Your task to perform on an android device: toggle javascript in the chrome app Image 0: 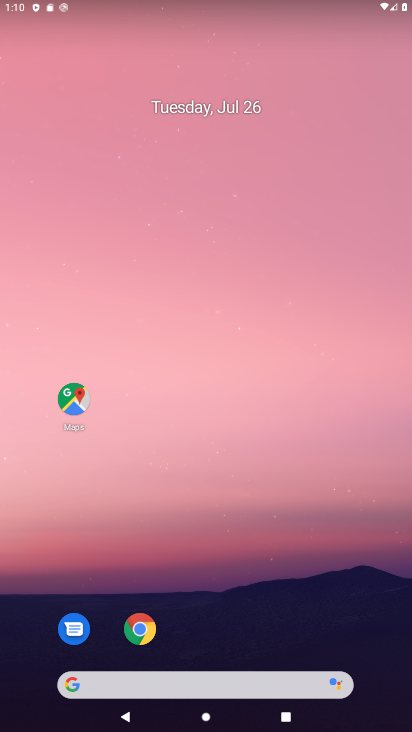
Step 0: drag from (196, 674) to (345, 7)
Your task to perform on an android device: toggle javascript in the chrome app Image 1: 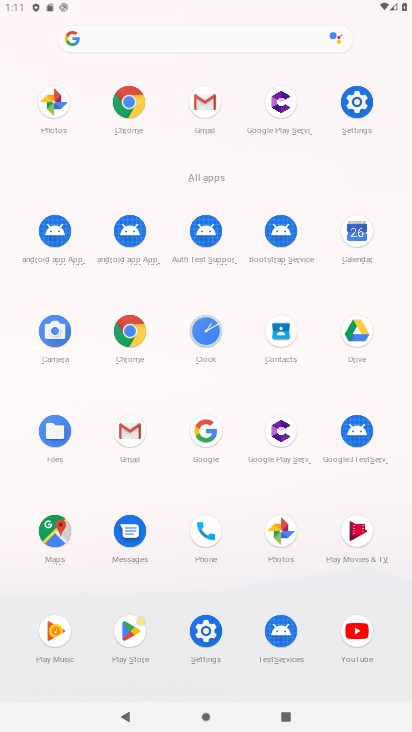
Step 1: click (136, 333)
Your task to perform on an android device: toggle javascript in the chrome app Image 2: 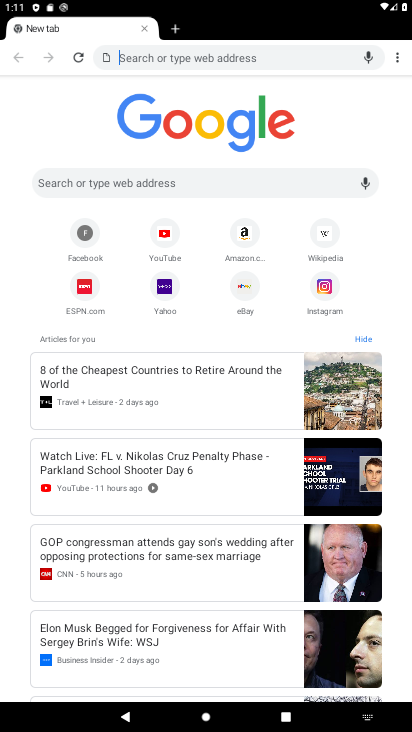
Step 2: drag from (399, 53) to (315, 273)
Your task to perform on an android device: toggle javascript in the chrome app Image 3: 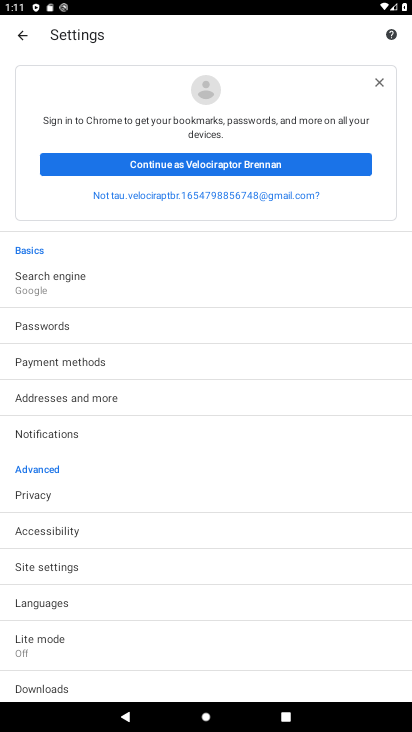
Step 3: drag from (100, 644) to (101, 510)
Your task to perform on an android device: toggle javascript in the chrome app Image 4: 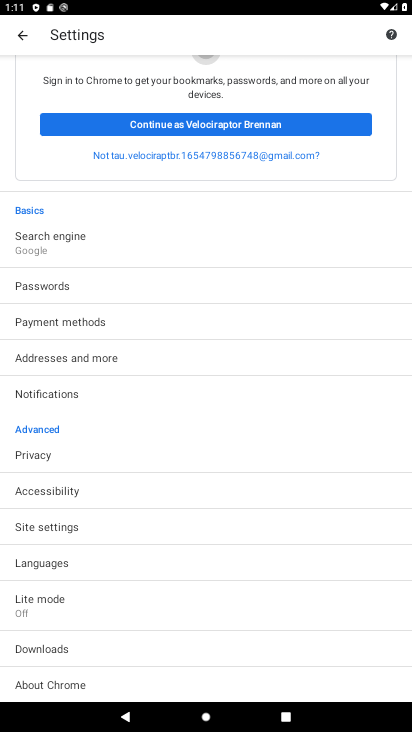
Step 4: click (89, 530)
Your task to perform on an android device: toggle javascript in the chrome app Image 5: 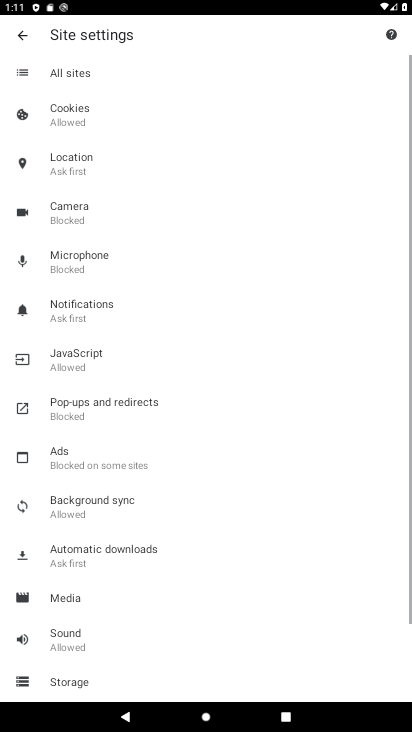
Step 5: click (121, 362)
Your task to perform on an android device: toggle javascript in the chrome app Image 6: 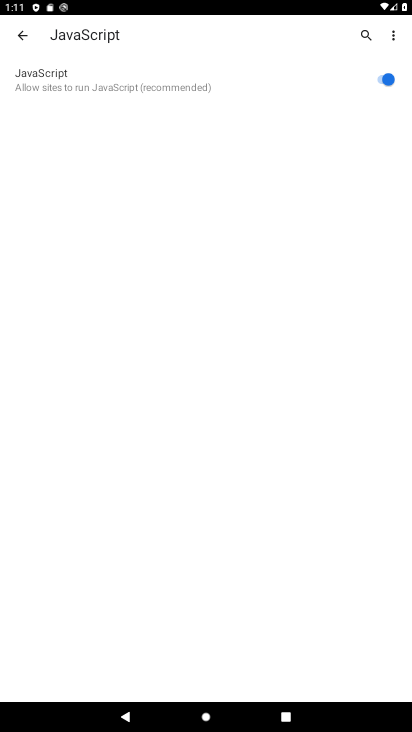
Step 6: click (385, 75)
Your task to perform on an android device: toggle javascript in the chrome app Image 7: 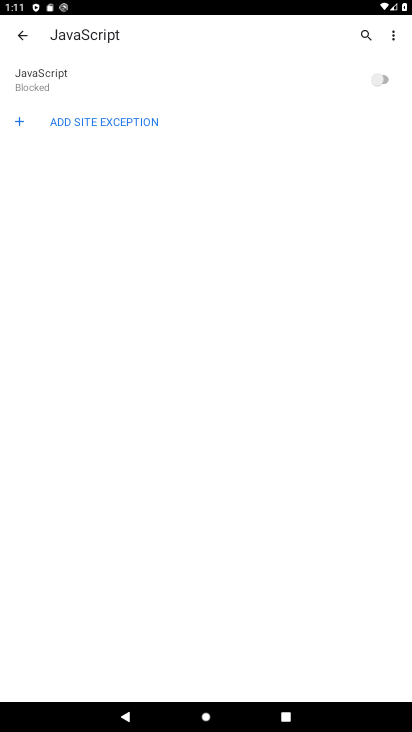
Step 7: task complete